Your task to perform on an android device: turn on priority inbox in the gmail app Image 0: 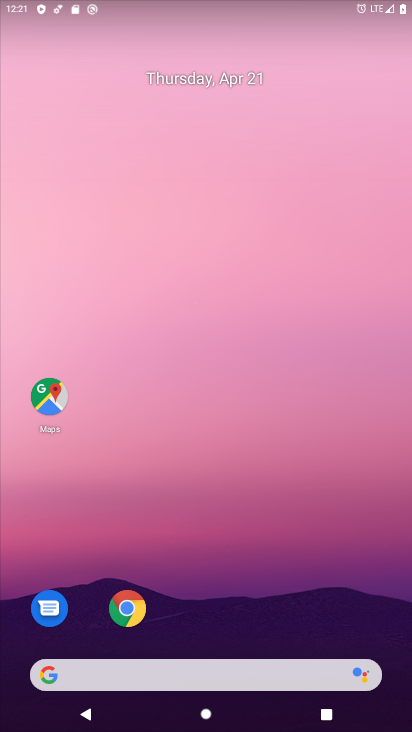
Step 0: drag from (205, 590) to (216, 174)
Your task to perform on an android device: turn on priority inbox in the gmail app Image 1: 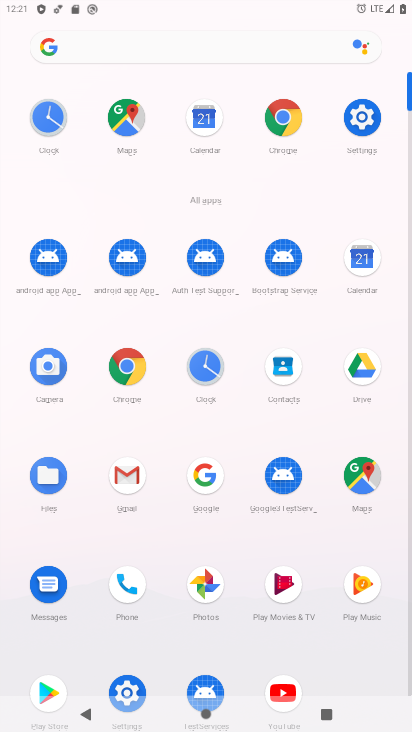
Step 1: click (126, 477)
Your task to perform on an android device: turn on priority inbox in the gmail app Image 2: 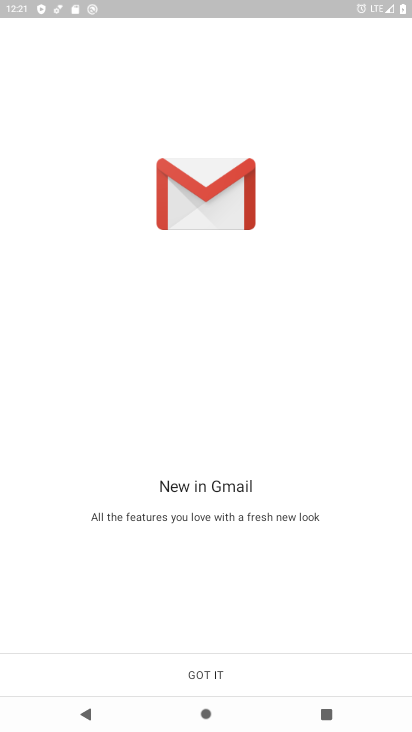
Step 2: click (210, 662)
Your task to perform on an android device: turn on priority inbox in the gmail app Image 3: 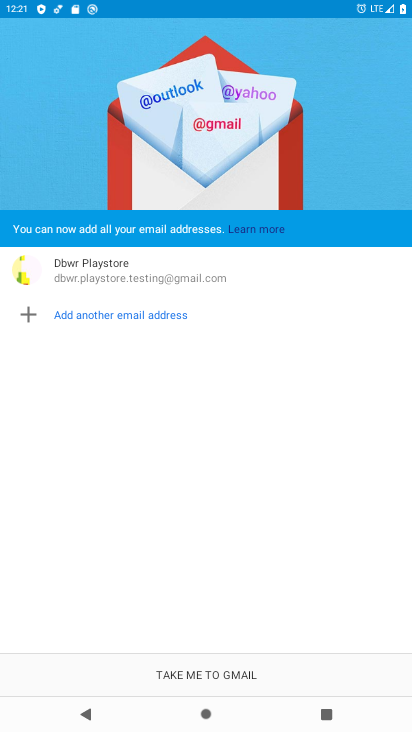
Step 3: click (240, 668)
Your task to perform on an android device: turn on priority inbox in the gmail app Image 4: 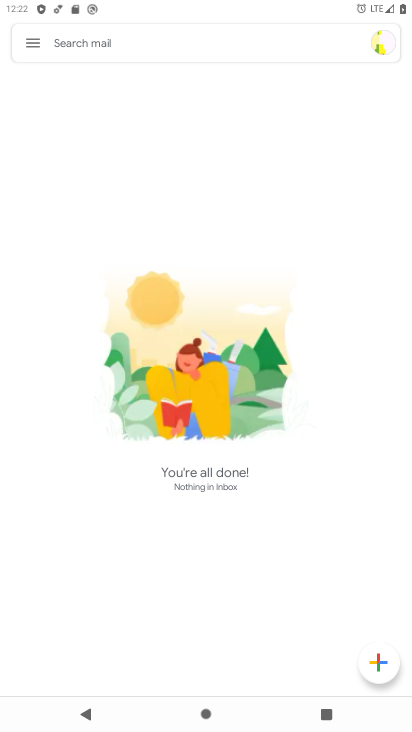
Step 4: click (29, 39)
Your task to perform on an android device: turn on priority inbox in the gmail app Image 5: 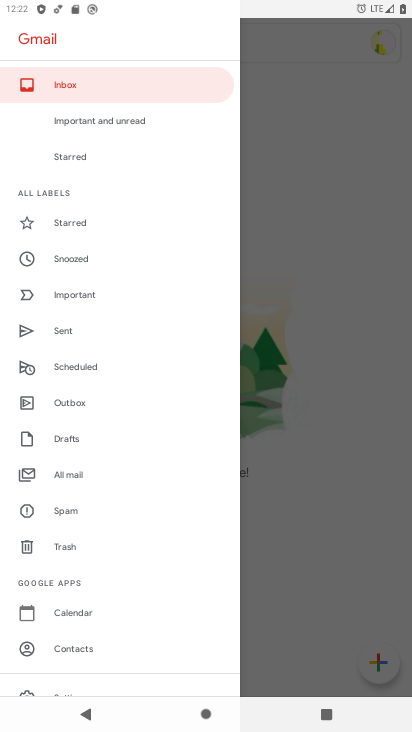
Step 5: drag from (115, 548) to (162, 183)
Your task to perform on an android device: turn on priority inbox in the gmail app Image 6: 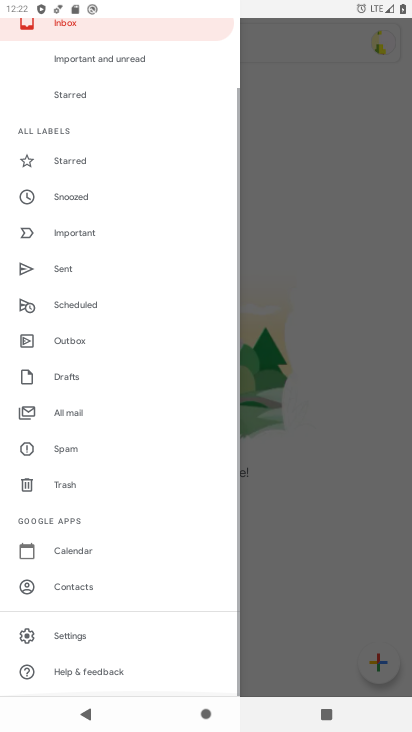
Step 6: click (47, 627)
Your task to perform on an android device: turn on priority inbox in the gmail app Image 7: 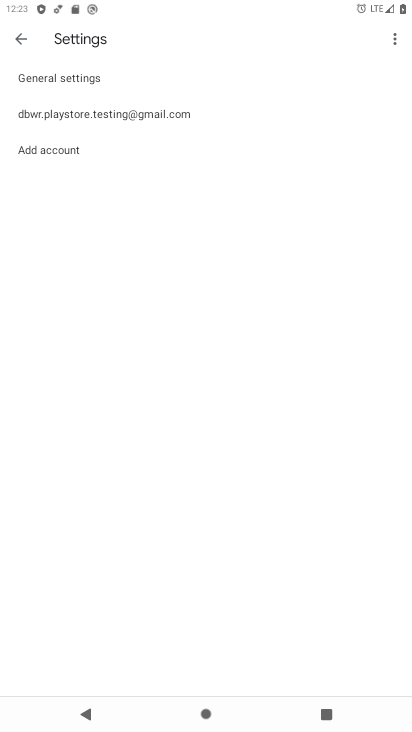
Step 7: click (148, 109)
Your task to perform on an android device: turn on priority inbox in the gmail app Image 8: 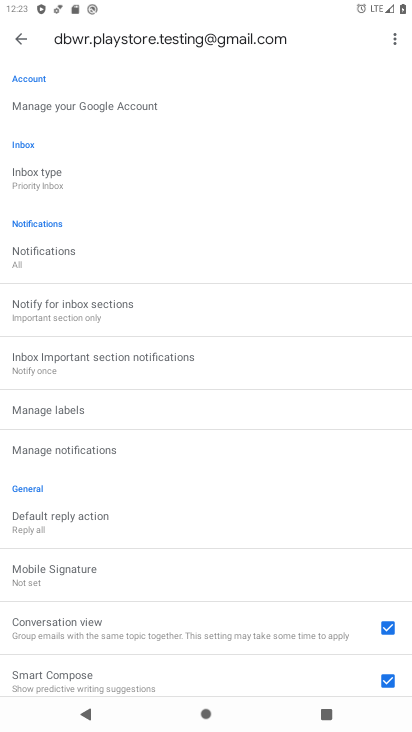
Step 8: click (81, 187)
Your task to perform on an android device: turn on priority inbox in the gmail app Image 9: 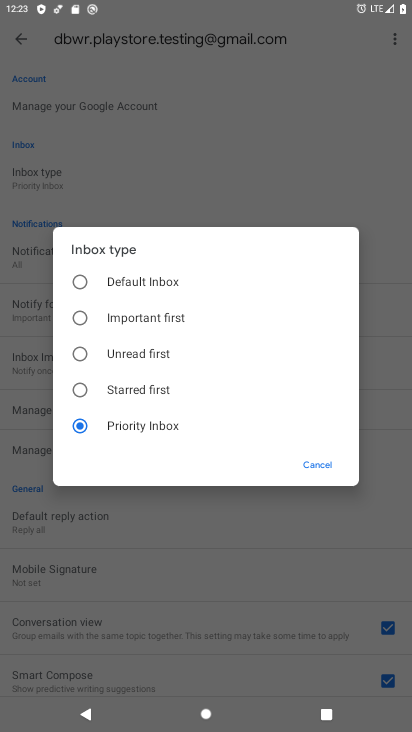
Step 9: task complete